Your task to perform on an android device: move an email to a new category in the gmail app Image 0: 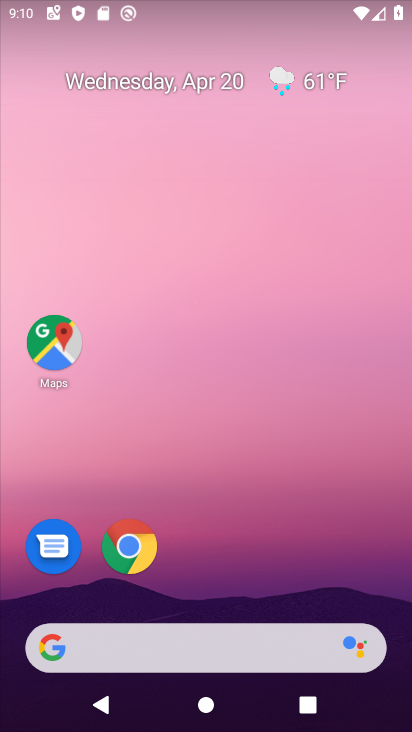
Step 0: click (207, 57)
Your task to perform on an android device: move an email to a new category in the gmail app Image 1: 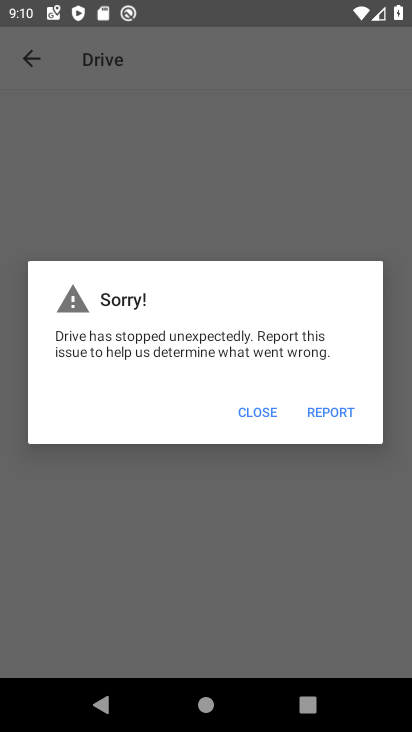
Step 1: press home button
Your task to perform on an android device: move an email to a new category in the gmail app Image 2: 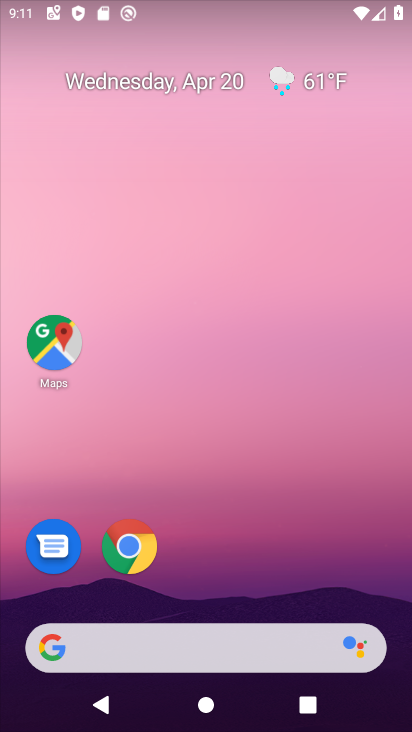
Step 2: drag from (209, 727) to (188, 54)
Your task to perform on an android device: move an email to a new category in the gmail app Image 3: 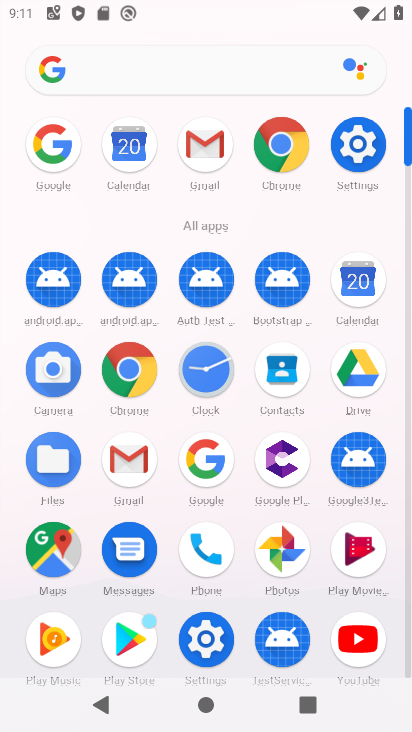
Step 3: click (207, 151)
Your task to perform on an android device: move an email to a new category in the gmail app Image 4: 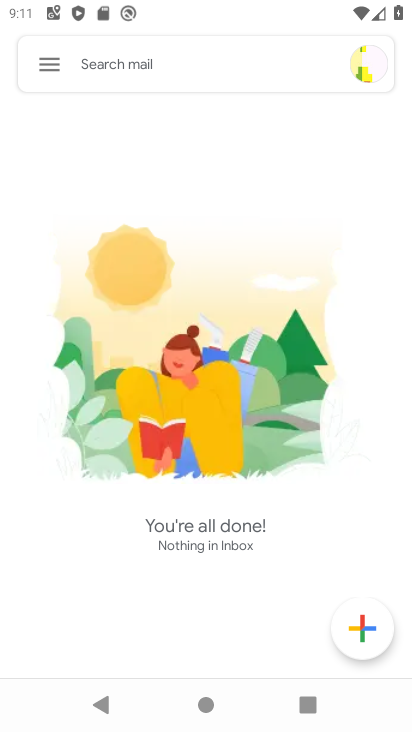
Step 4: task complete